Your task to perform on an android device: Open accessibility settings Image 0: 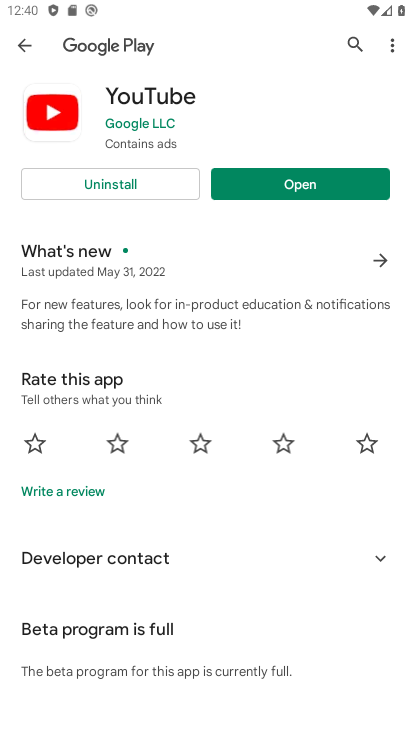
Step 0: press home button
Your task to perform on an android device: Open accessibility settings Image 1: 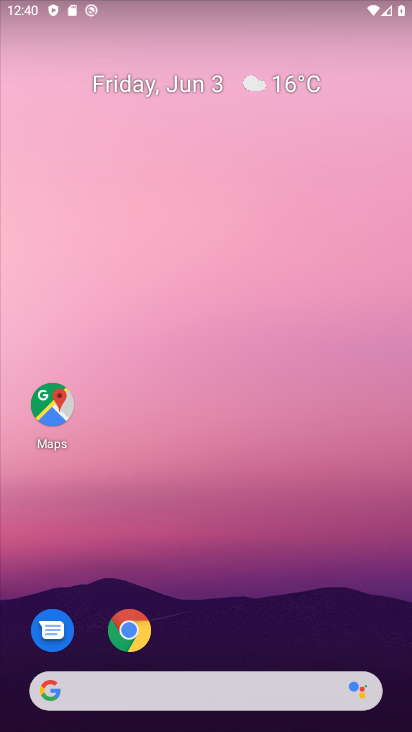
Step 1: drag from (325, 731) to (296, 123)
Your task to perform on an android device: Open accessibility settings Image 2: 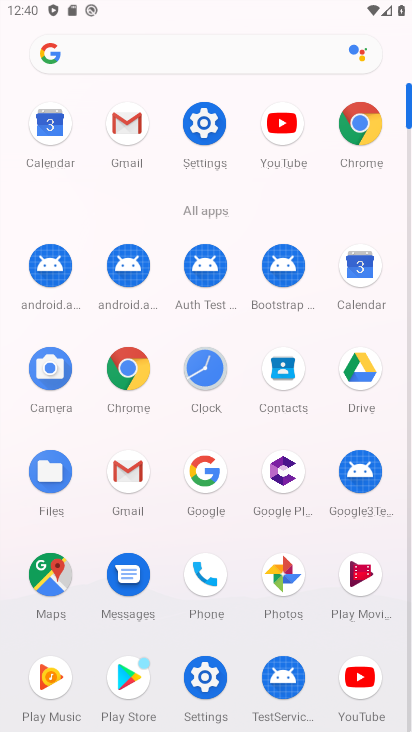
Step 2: click (205, 139)
Your task to perform on an android device: Open accessibility settings Image 3: 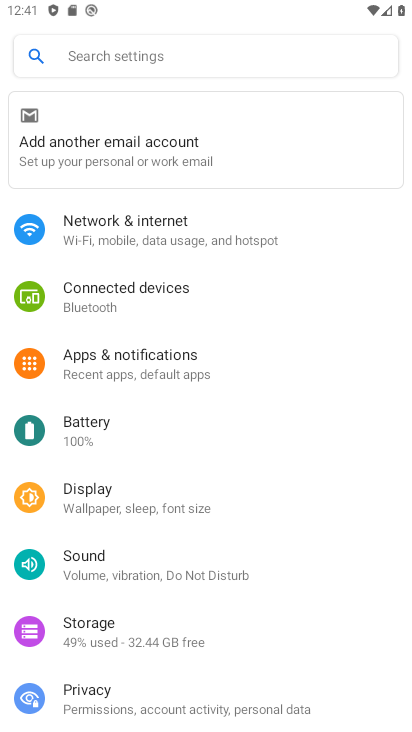
Step 3: click (143, 55)
Your task to perform on an android device: Open accessibility settings Image 4: 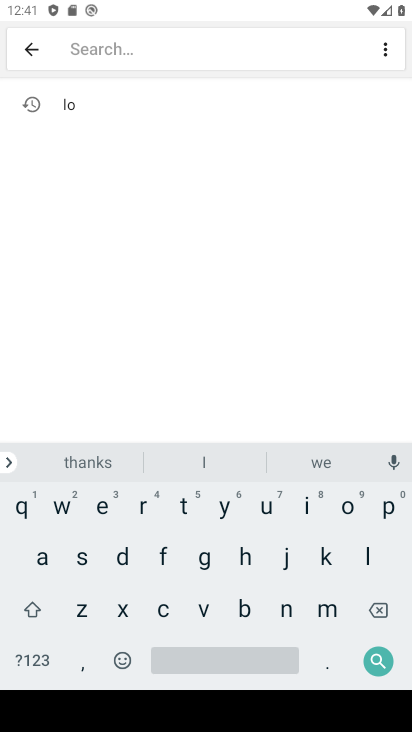
Step 4: click (35, 557)
Your task to perform on an android device: Open accessibility settings Image 5: 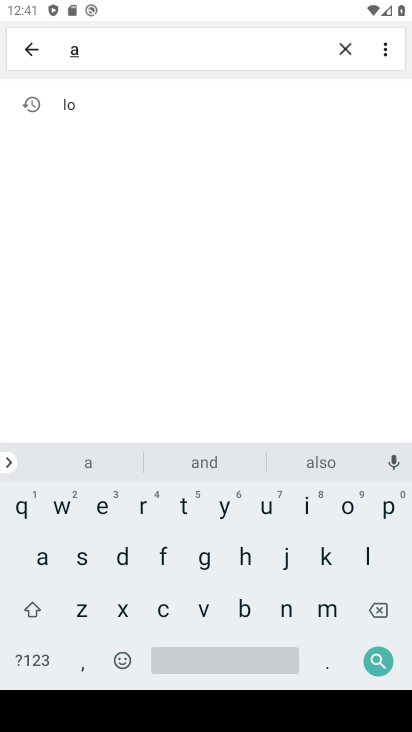
Step 5: click (165, 614)
Your task to perform on an android device: Open accessibility settings Image 6: 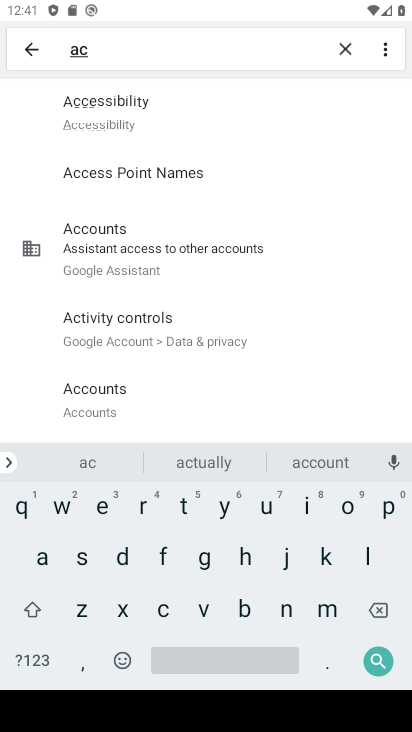
Step 6: click (108, 123)
Your task to perform on an android device: Open accessibility settings Image 7: 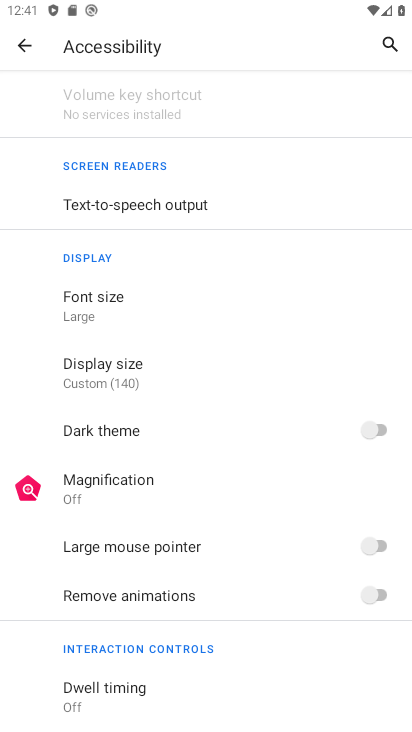
Step 7: task complete